Your task to perform on an android device: What is the news today? Image 0: 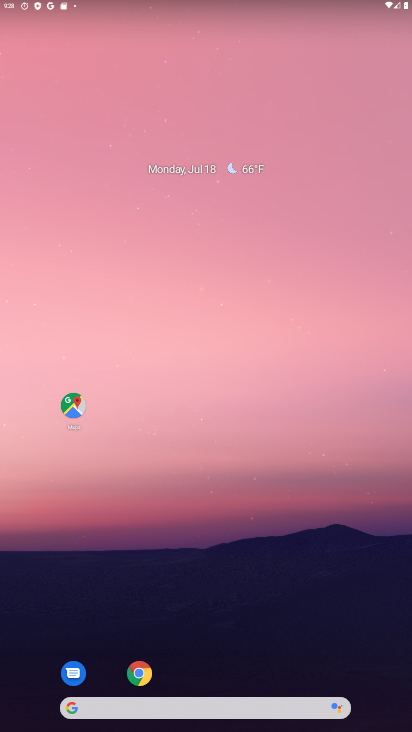
Step 0: drag from (222, 686) to (194, 140)
Your task to perform on an android device: What is the news today? Image 1: 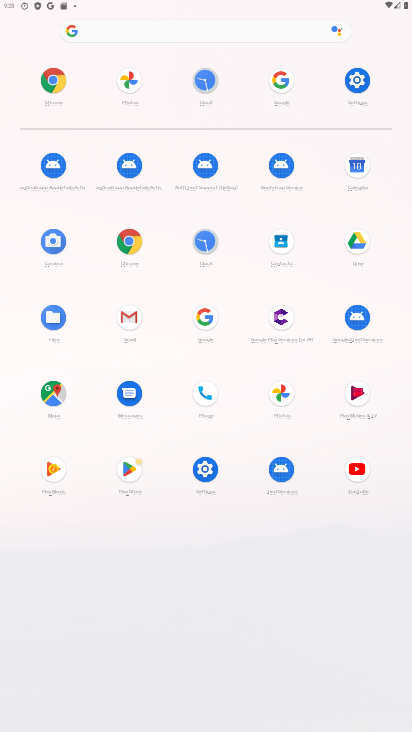
Step 1: click (207, 315)
Your task to perform on an android device: What is the news today? Image 2: 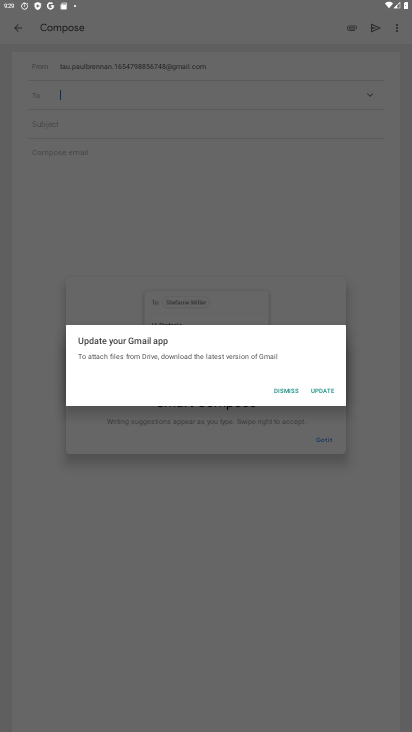
Step 2: press home button
Your task to perform on an android device: What is the news today? Image 3: 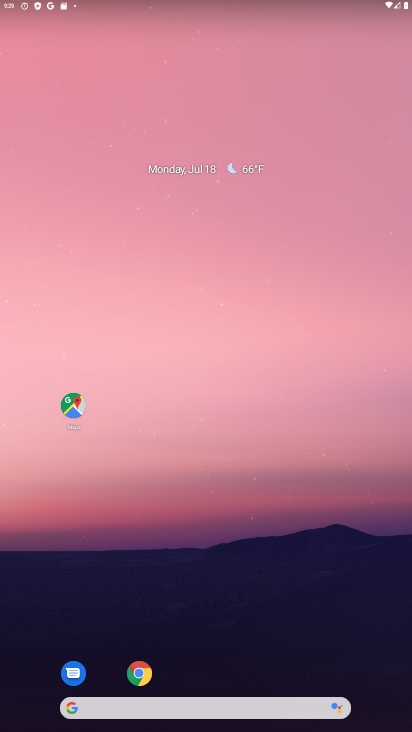
Step 3: drag from (175, 665) to (192, 103)
Your task to perform on an android device: What is the news today? Image 4: 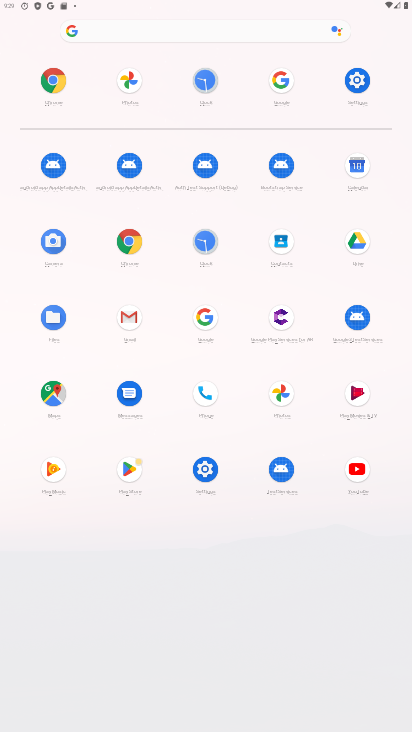
Step 4: click (206, 315)
Your task to perform on an android device: What is the news today? Image 5: 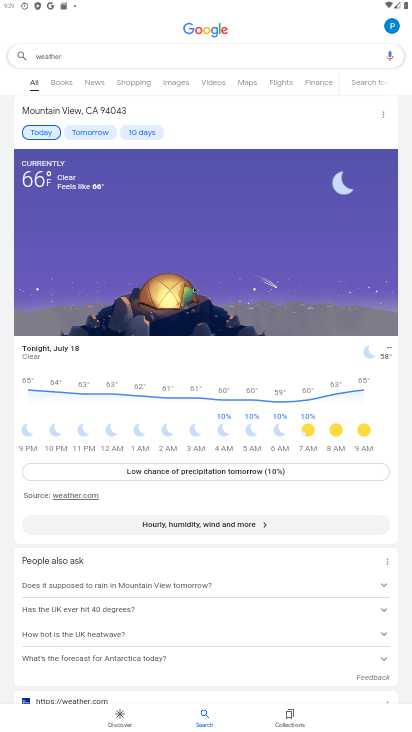
Step 5: click (149, 49)
Your task to perform on an android device: What is the news today? Image 6: 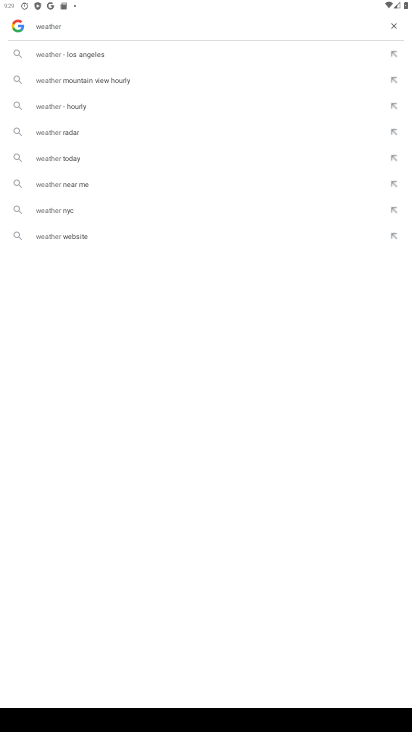
Step 6: click (394, 28)
Your task to perform on an android device: What is the news today? Image 7: 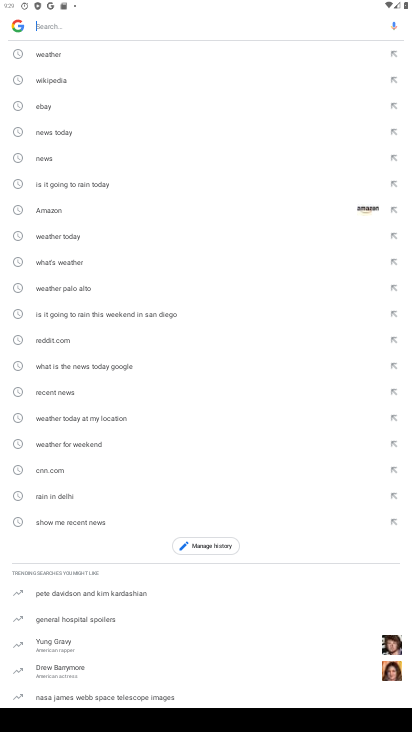
Step 7: type "what is news today"
Your task to perform on an android device: What is the news today? Image 8: 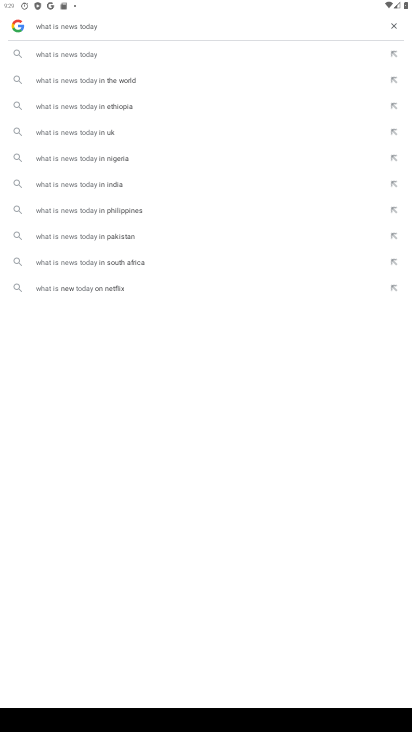
Step 8: click (86, 54)
Your task to perform on an android device: What is the news today? Image 9: 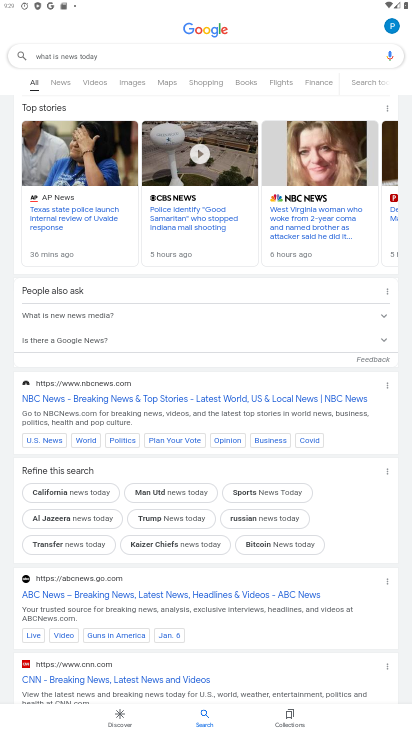
Step 9: task complete